Your task to perform on an android device: What's on my calendar tomorrow? Image 0: 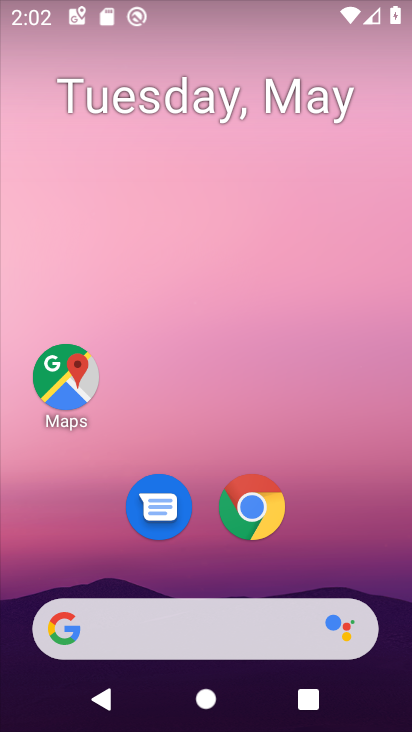
Step 0: drag from (199, 575) to (200, 148)
Your task to perform on an android device: What's on my calendar tomorrow? Image 1: 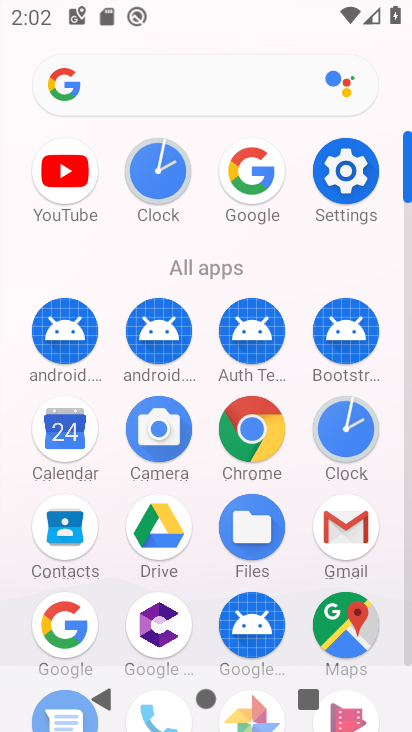
Step 1: click (90, 432)
Your task to perform on an android device: What's on my calendar tomorrow? Image 2: 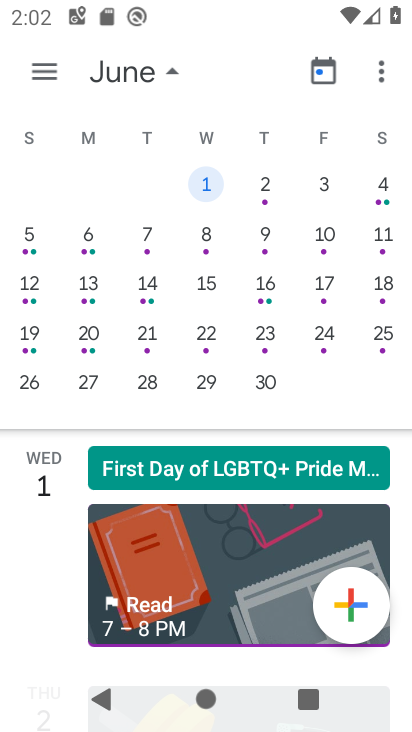
Step 2: drag from (64, 270) to (398, 275)
Your task to perform on an android device: What's on my calendar tomorrow? Image 3: 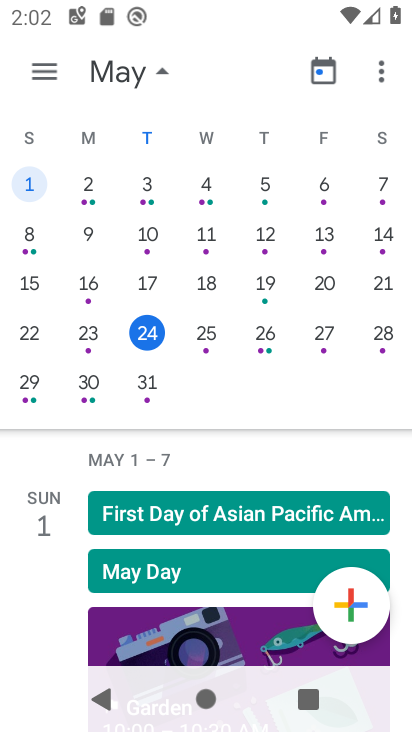
Step 3: click (204, 334)
Your task to perform on an android device: What's on my calendar tomorrow? Image 4: 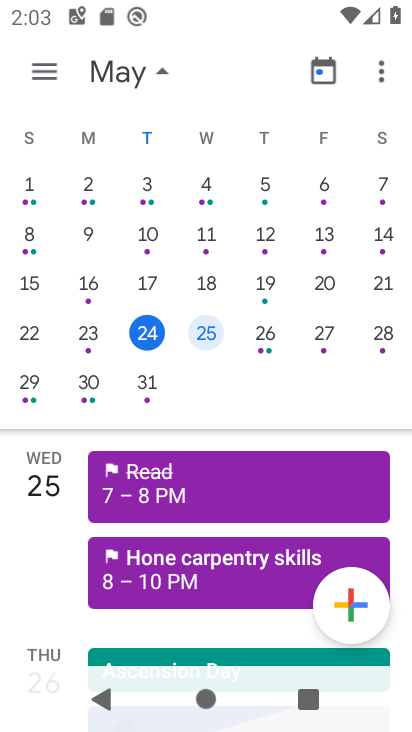
Step 4: task complete